Your task to perform on an android device: Open Youtube and go to "Your channel" Image 0: 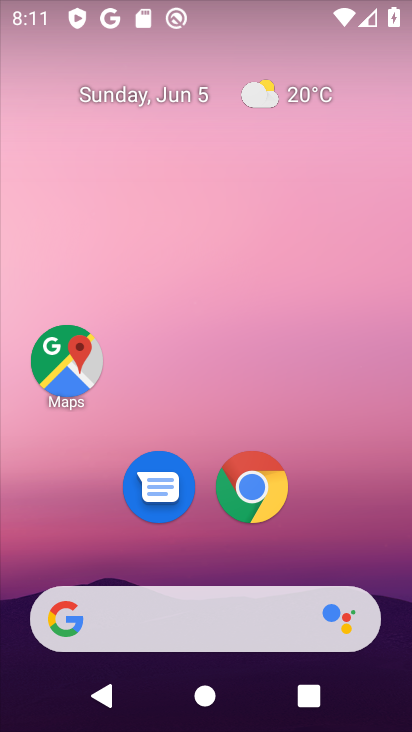
Step 0: drag from (187, 578) to (258, 0)
Your task to perform on an android device: Open Youtube and go to "Your channel" Image 1: 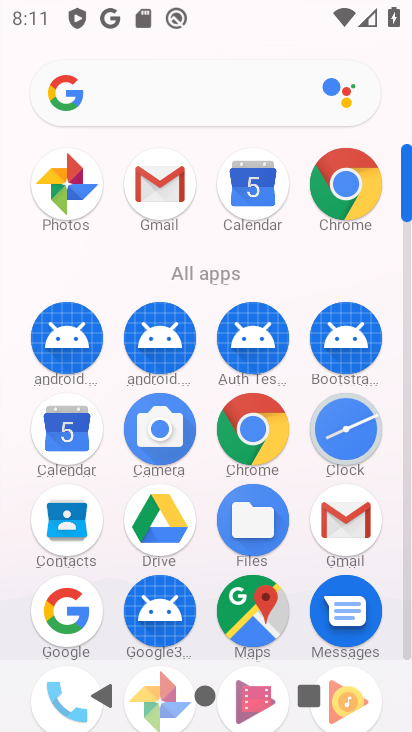
Step 1: drag from (221, 621) to (306, 92)
Your task to perform on an android device: Open Youtube and go to "Your channel" Image 2: 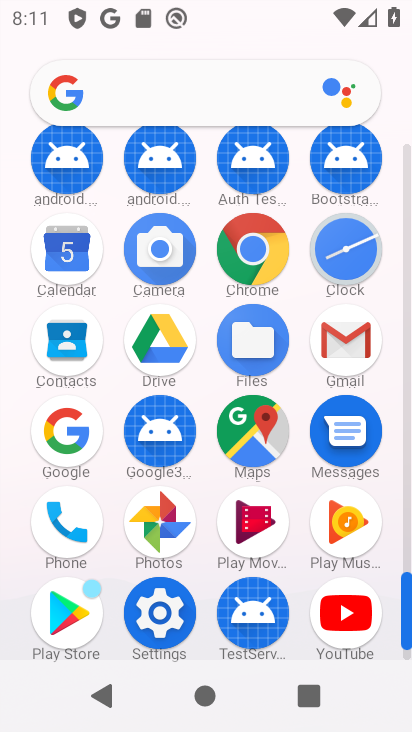
Step 2: click (349, 613)
Your task to perform on an android device: Open Youtube and go to "Your channel" Image 3: 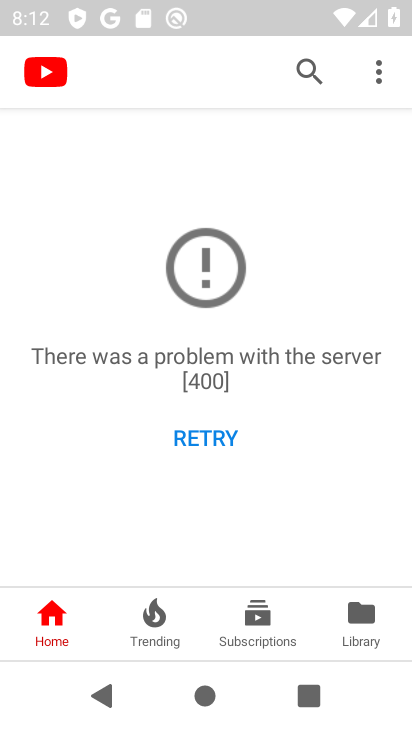
Step 3: click (377, 632)
Your task to perform on an android device: Open Youtube and go to "Your channel" Image 4: 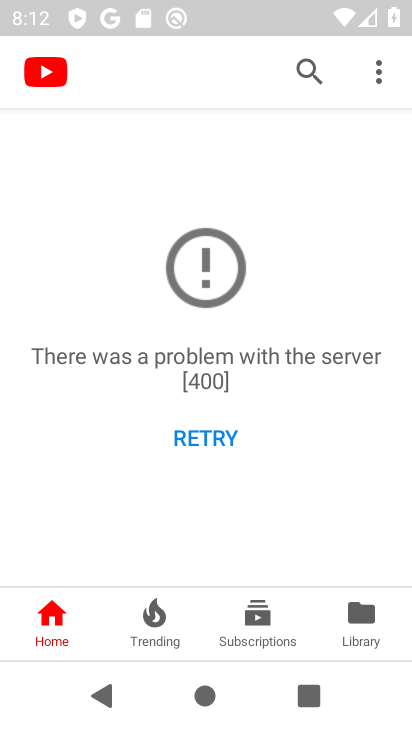
Step 4: task complete